Your task to perform on an android device: find snoozed emails in the gmail app Image 0: 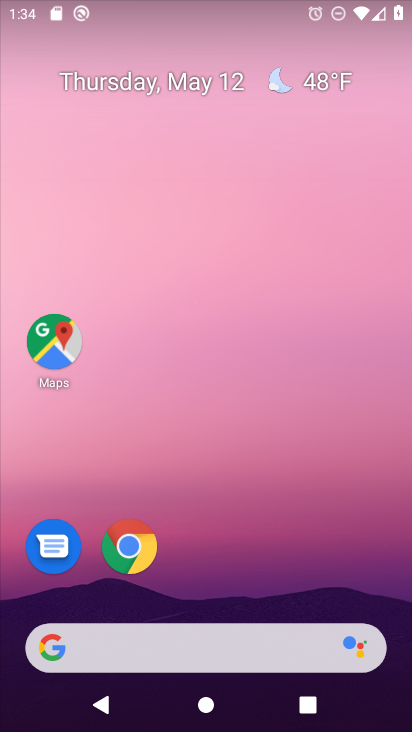
Step 0: press home button
Your task to perform on an android device: find snoozed emails in the gmail app Image 1: 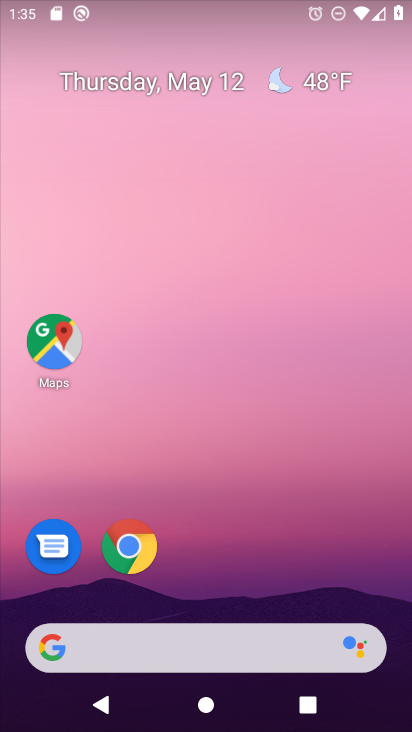
Step 1: drag from (223, 654) to (356, 217)
Your task to perform on an android device: find snoozed emails in the gmail app Image 2: 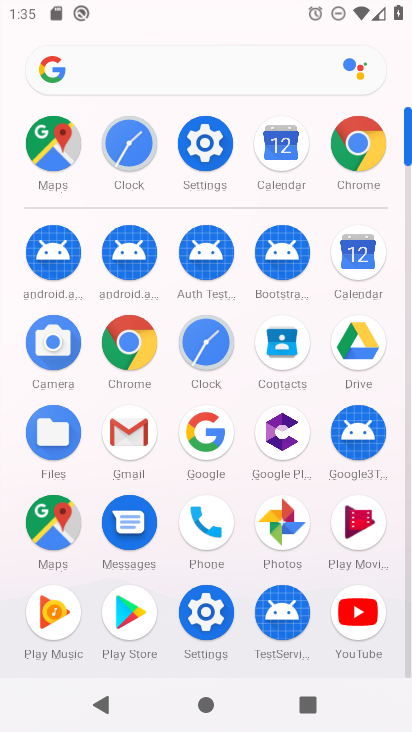
Step 2: click (133, 446)
Your task to perform on an android device: find snoozed emails in the gmail app Image 3: 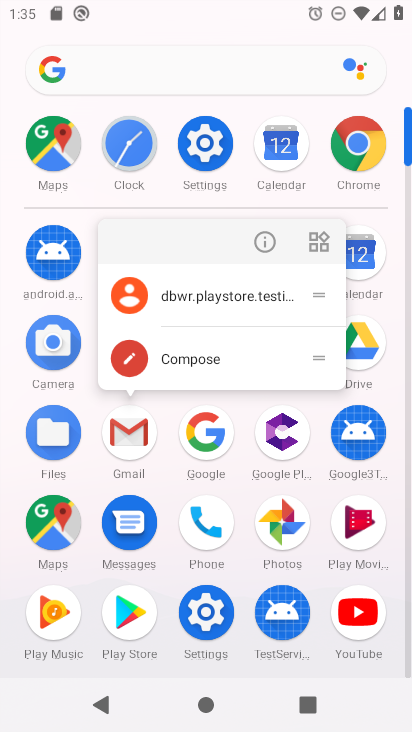
Step 3: click (120, 446)
Your task to perform on an android device: find snoozed emails in the gmail app Image 4: 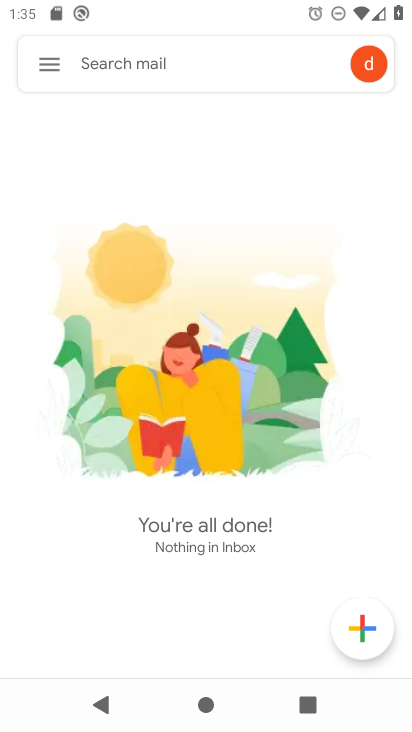
Step 4: click (49, 61)
Your task to perform on an android device: find snoozed emails in the gmail app Image 5: 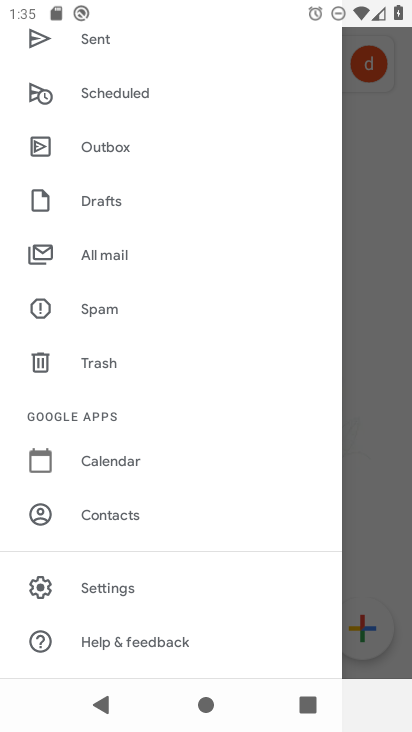
Step 5: drag from (146, 589) to (266, 289)
Your task to perform on an android device: find snoozed emails in the gmail app Image 6: 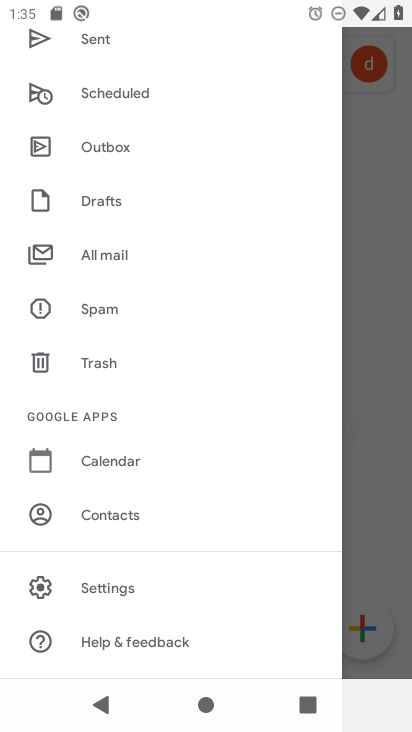
Step 6: drag from (214, 127) to (174, 484)
Your task to perform on an android device: find snoozed emails in the gmail app Image 7: 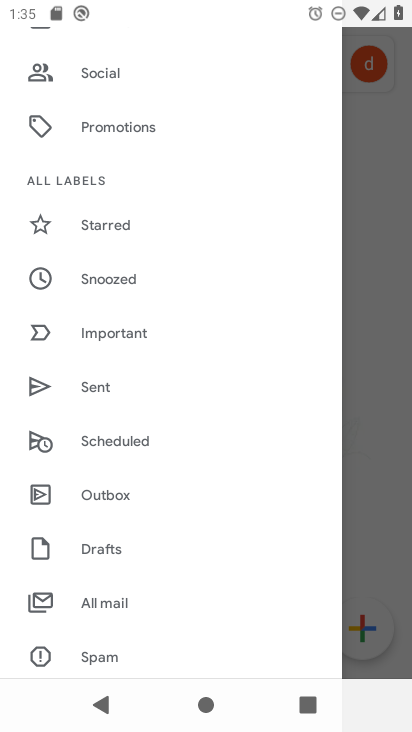
Step 7: click (122, 284)
Your task to perform on an android device: find snoozed emails in the gmail app Image 8: 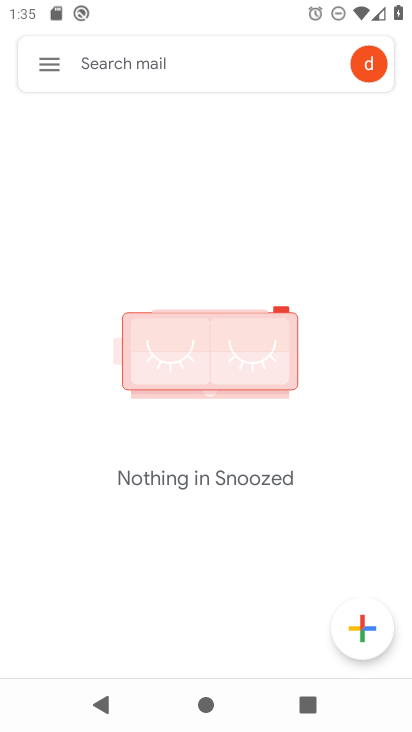
Step 8: task complete